Your task to perform on an android device: clear history in the chrome app Image 0: 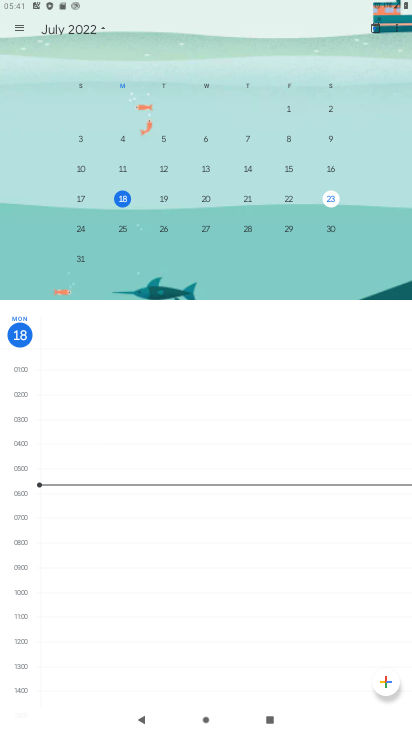
Step 0: press home button
Your task to perform on an android device: clear history in the chrome app Image 1: 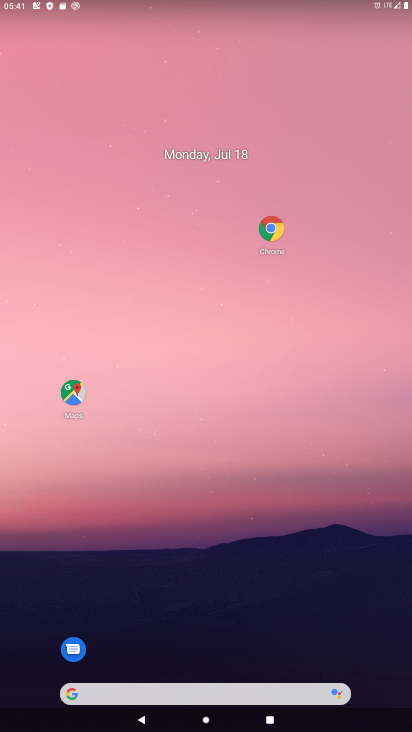
Step 1: click (274, 222)
Your task to perform on an android device: clear history in the chrome app Image 2: 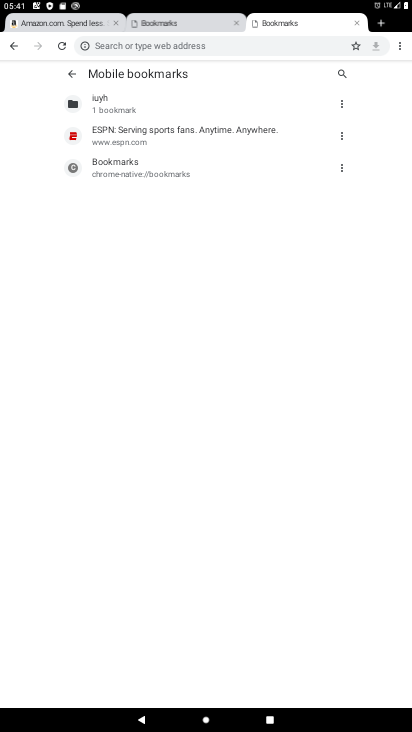
Step 2: click (399, 53)
Your task to perform on an android device: clear history in the chrome app Image 3: 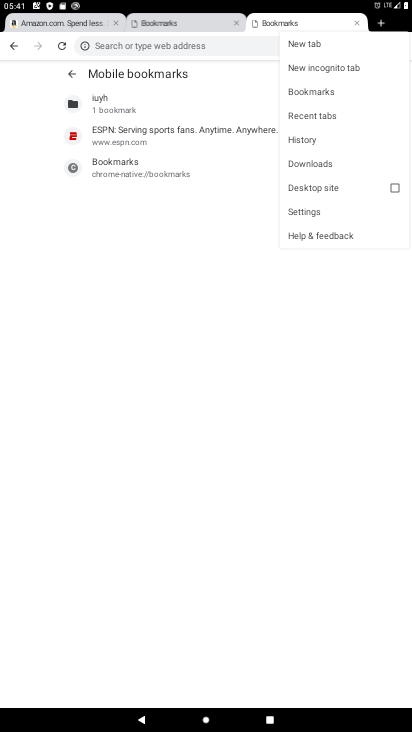
Step 3: click (303, 137)
Your task to perform on an android device: clear history in the chrome app Image 4: 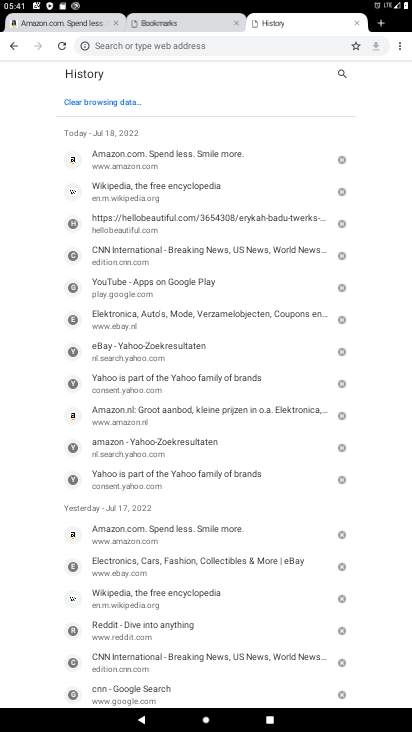
Step 4: click (108, 99)
Your task to perform on an android device: clear history in the chrome app Image 5: 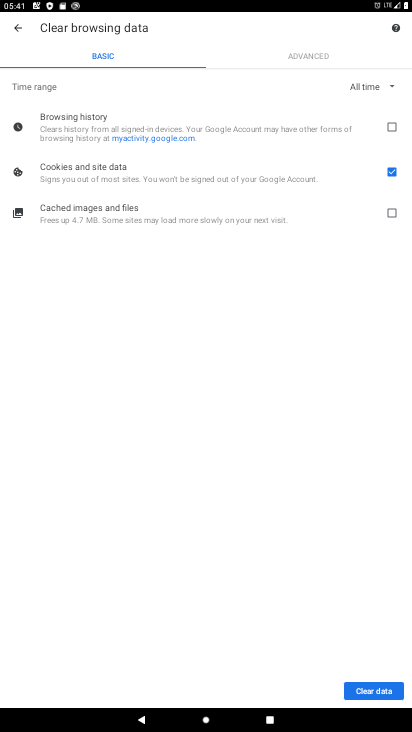
Step 5: click (387, 129)
Your task to perform on an android device: clear history in the chrome app Image 6: 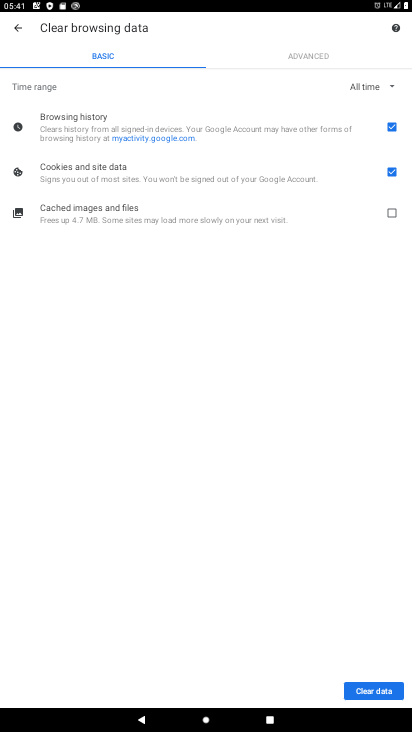
Step 6: click (392, 175)
Your task to perform on an android device: clear history in the chrome app Image 7: 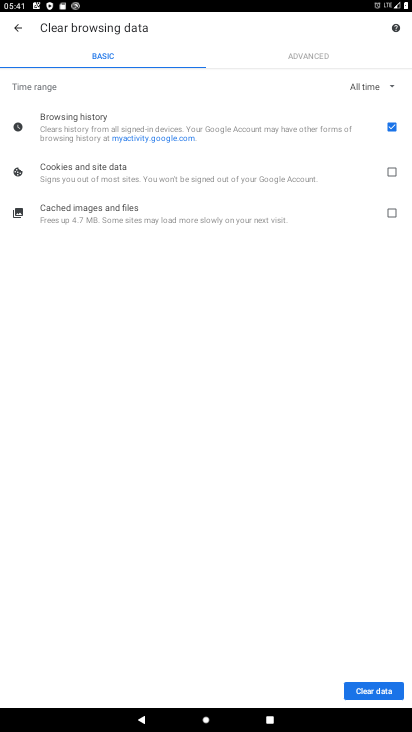
Step 7: click (392, 175)
Your task to perform on an android device: clear history in the chrome app Image 8: 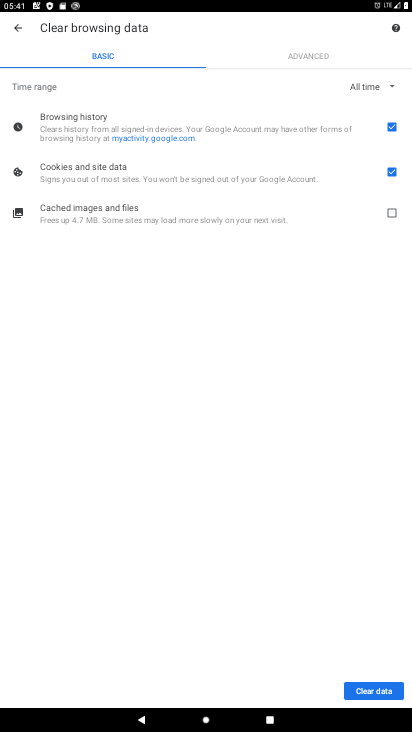
Step 8: click (392, 175)
Your task to perform on an android device: clear history in the chrome app Image 9: 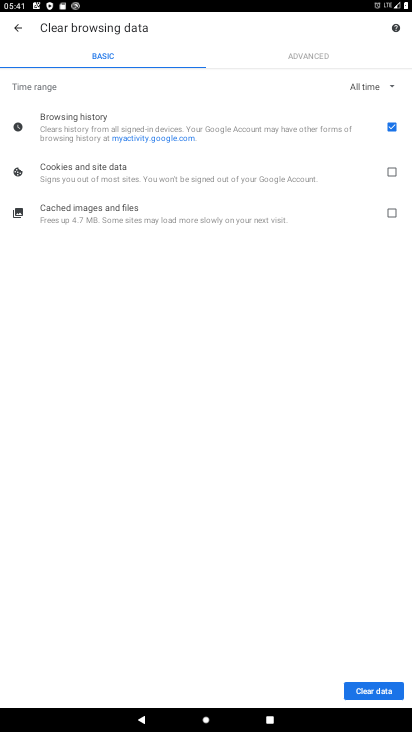
Step 9: click (358, 702)
Your task to perform on an android device: clear history in the chrome app Image 10: 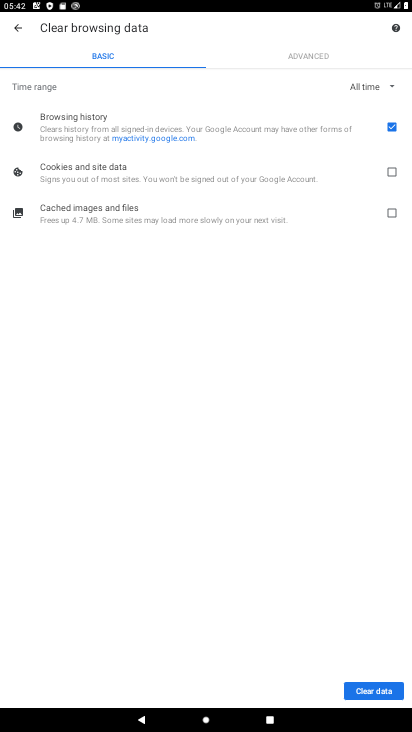
Step 10: click (379, 686)
Your task to perform on an android device: clear history in the chrome app Image 11: 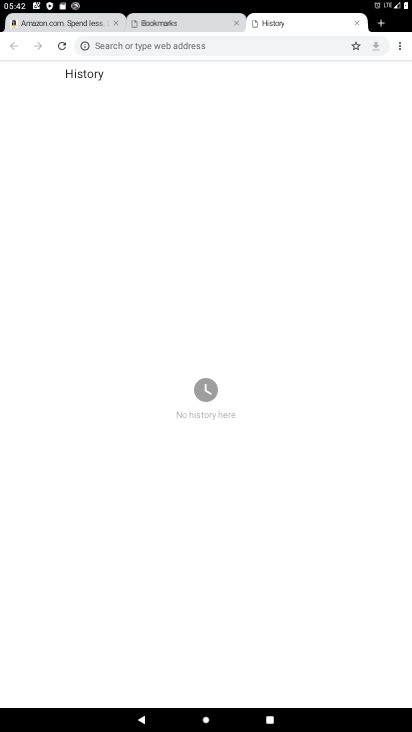
Step 11: task complete